Your task to perform on an android device: Open Youtube and go to "Your channel" Image 0: 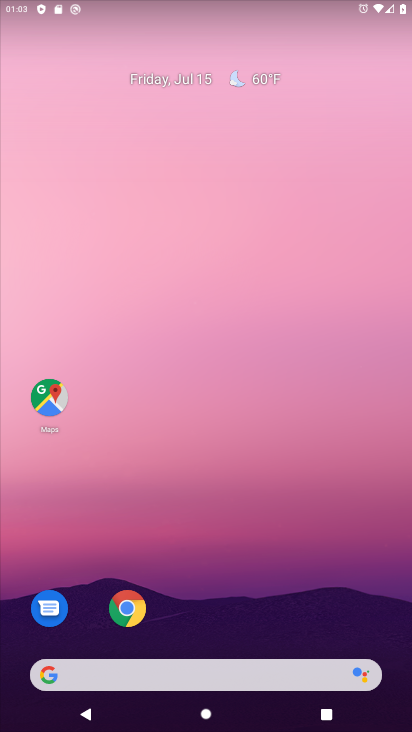
Step 0: press home button
Your task to perform on an android device: Open Youtube and go to "Your channel" Image 1: 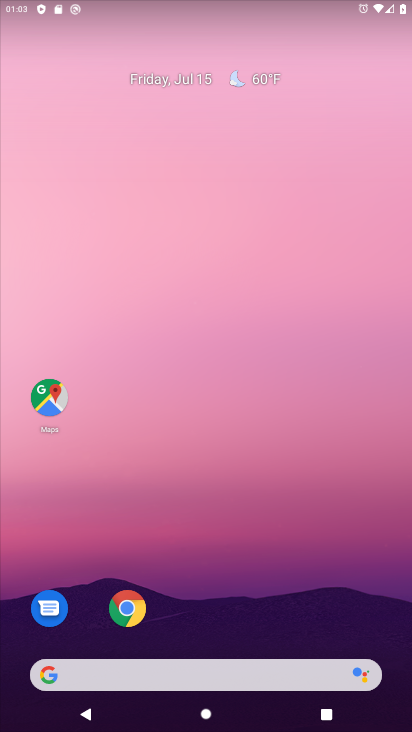
Step 1: drag from (255, 608) to (18, 87)
Your task to perform on an android device: Open Youtube and go to "Your channel" Image 2: 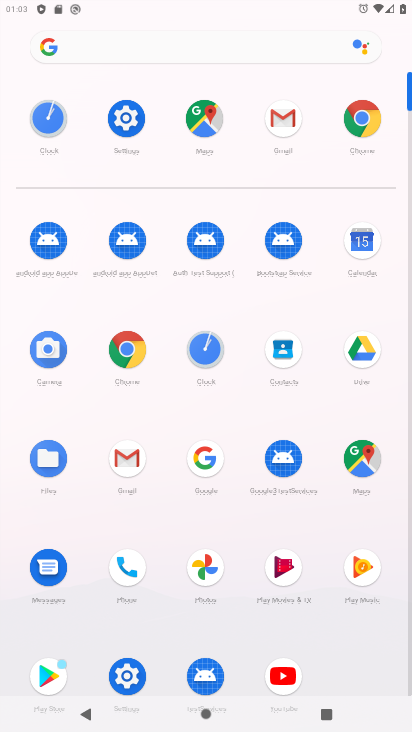
Step 2: click (279, 667)
Your task to perform on an android device: Open Youtube and go to "Your channel" Image 3: 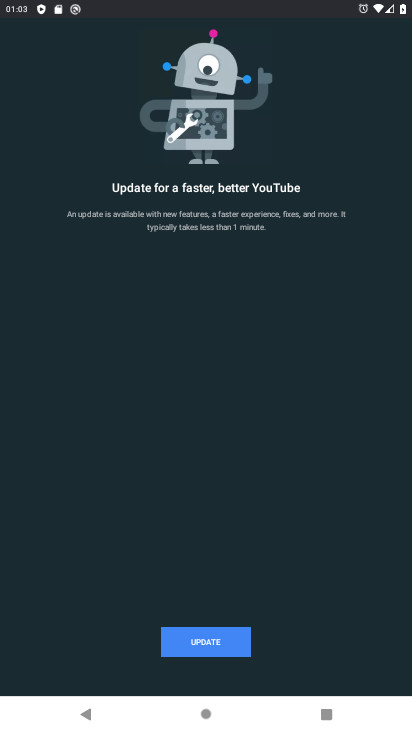
Step 3: click (214, 649)
Your task to perform on an android device: Open Youtube and go to "Your channel" Image 4: 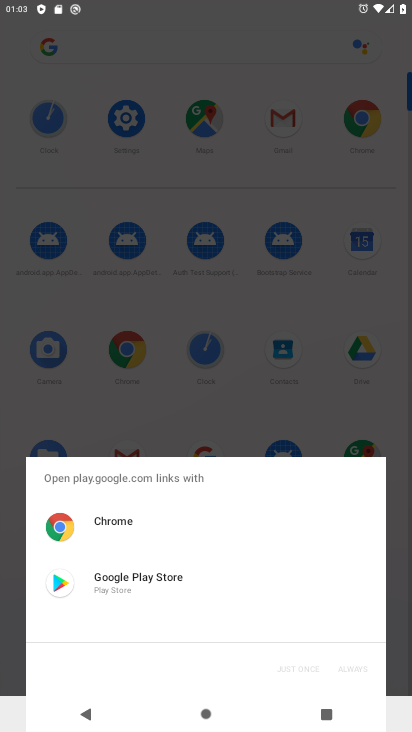
Step 4: click (155, 595)
Your task to perform on an android device: Open Youtube and go to "Your channel" Image 5: 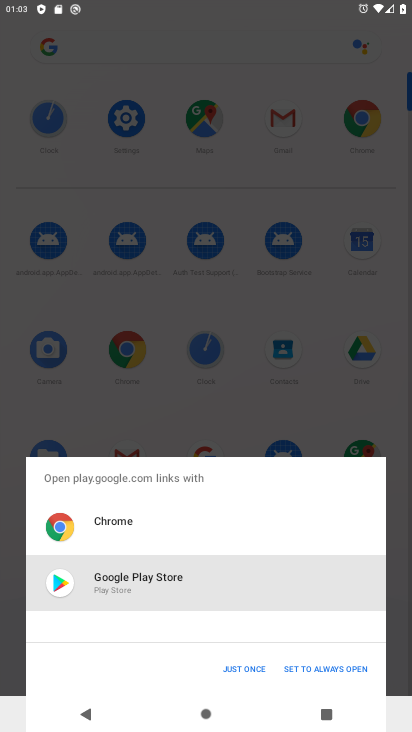
Step 5: click (266, 671)
Your task to perform on an android device: Open Youtube and go to "Your channel" Image 6: 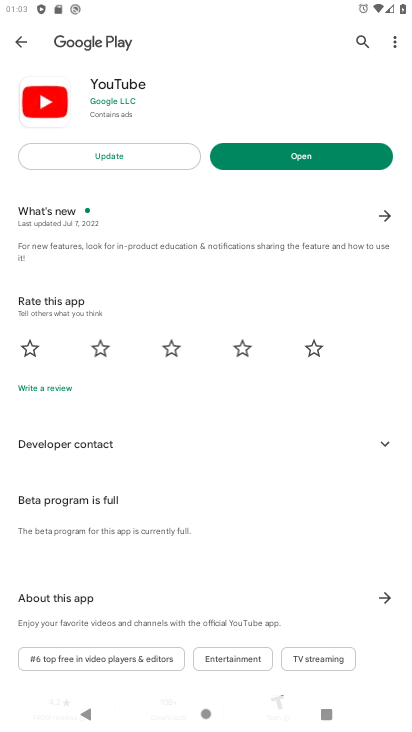
Step 6: click (62, 149)
Your task to perform on an android device: Open Youtube and go to "Your channel" Image 7: 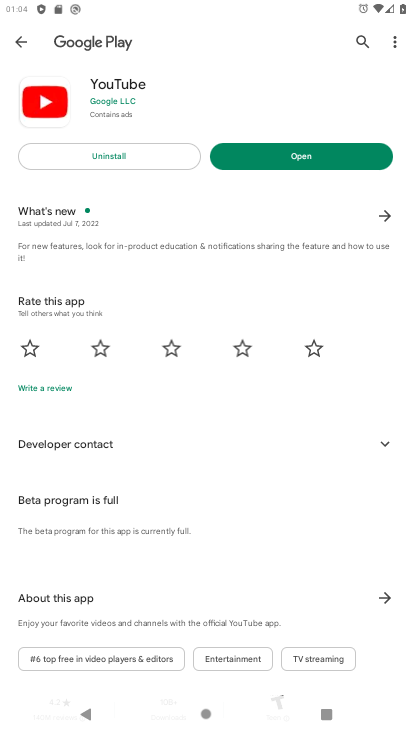
Step 7: click (320, 147)
Your task to perform on an android device: Open Youtube and go to "Your channel" Image 8: 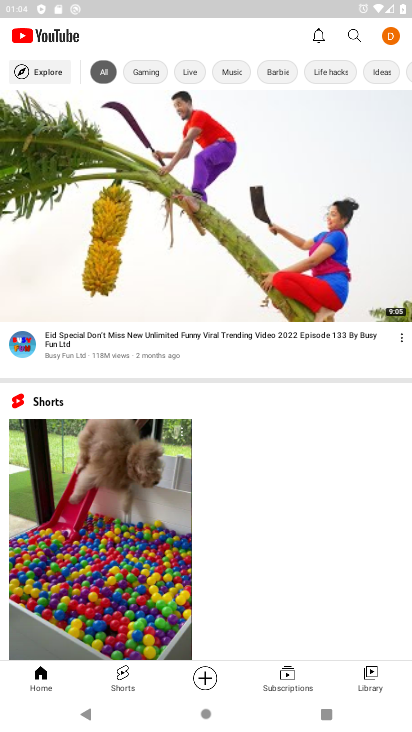
Step 8: click (388, 36)
Your task to perform on an android device: Open Youtube and go to "Your channel" Image 9: 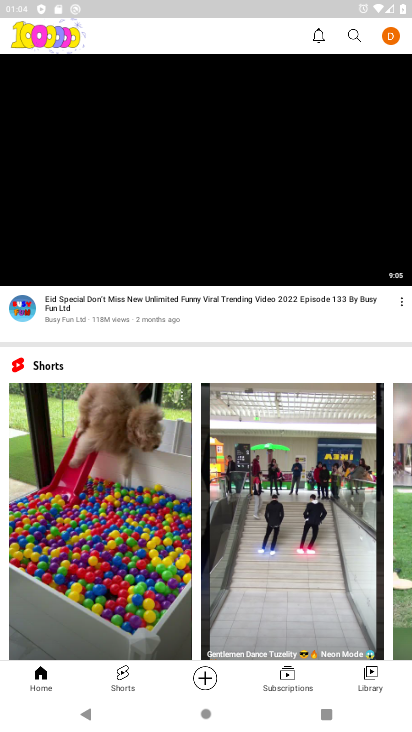
Step 9: click (388, 36)
Your task to perform on an android device: Open Youtube and go to "Your channel" Image 10: 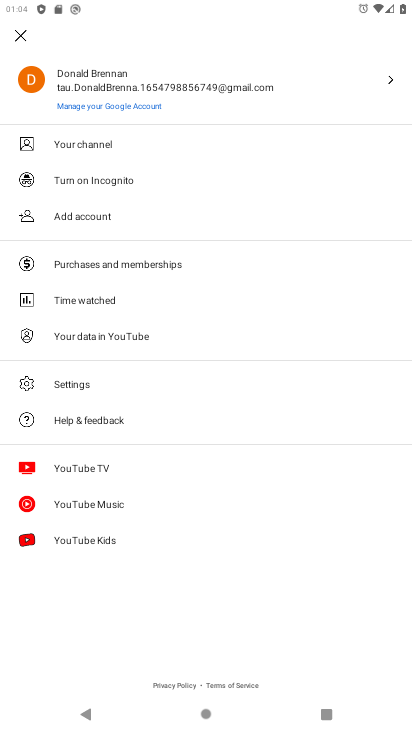
Step 10: click (56, 153)
Your task to perform on an android device: Open Youtube and go to "Your channel" Image 11: 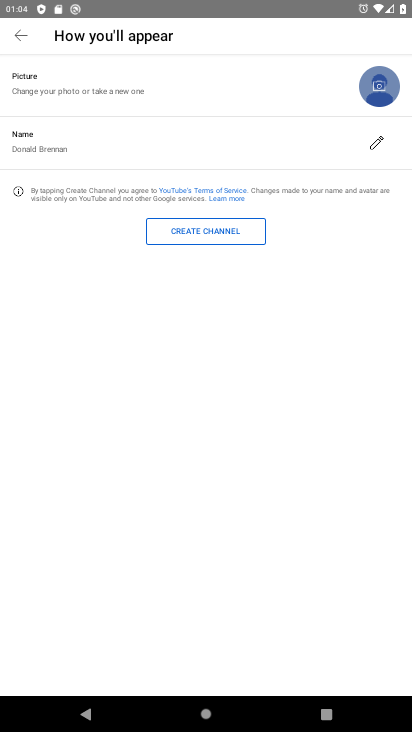
Step 11: task complete